Your task to perform on an android device: Show me recent news Image 0: 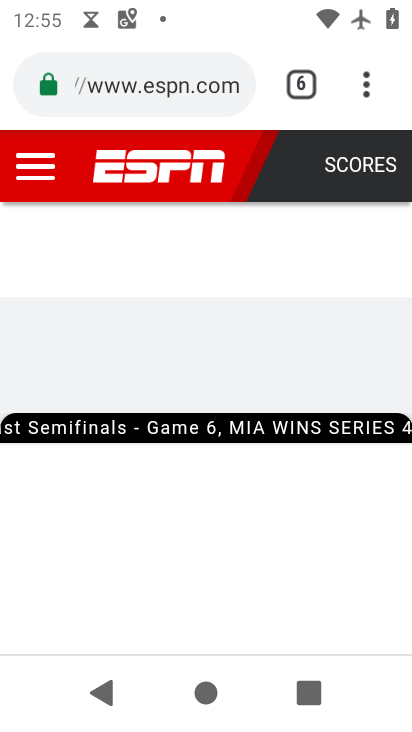
Step 0: press home button
Your task to perform on an android device: Show me recent news Image 1: 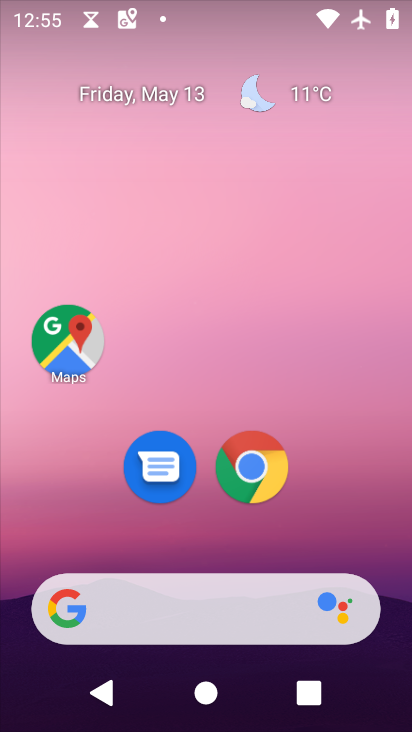
Step 1: drag from (349, 465) to (249, 47)
Your task to perform on an android device: Show me recent news Image 2: 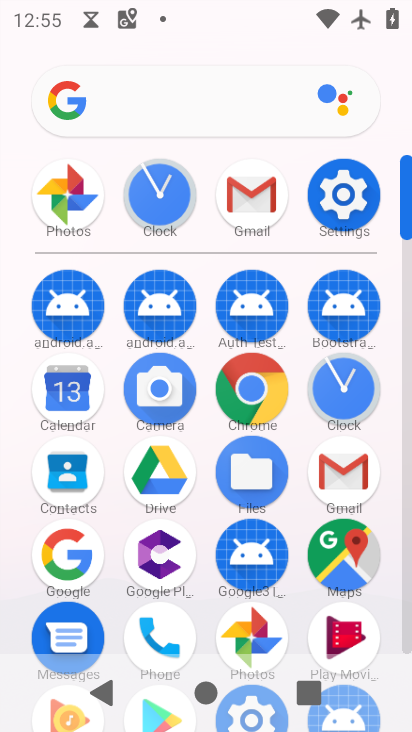
Step 2: click (74, 574)
Your task to perform on an android device: Show me recent news Image 3: 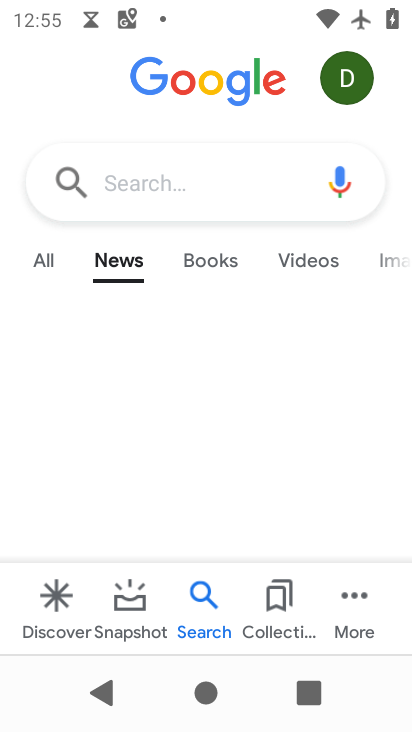
Step 3: click (122, 260)
Your task to perform on an android device: Show me recent news Image 4: 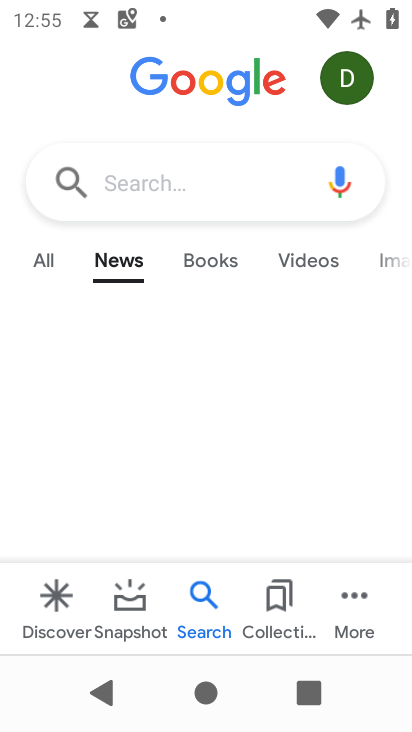
Step 4: drag from (238, 455) to (210, 85)
Your task to perform on an android device: Show me recent news Image 5: 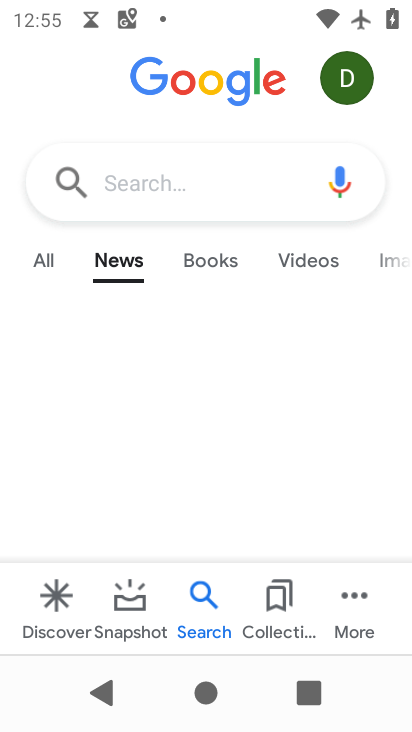
Step 5: click (148, 187)
Your task to perform on an android device: Show me recent news Image 6: 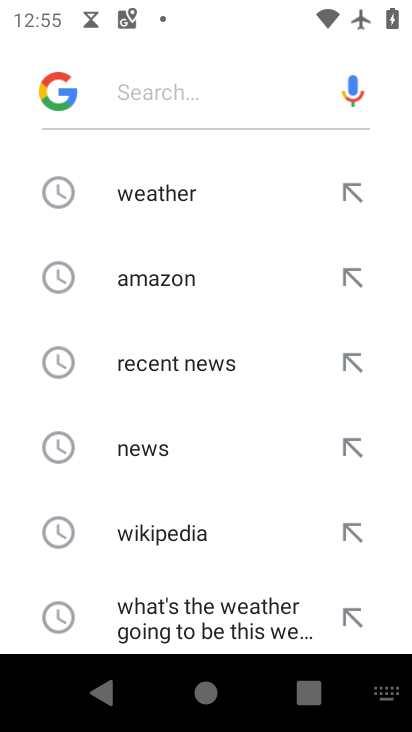
Step 6: click (172, 362)
Your task to perform on an android device: Show me recent news Image 7: 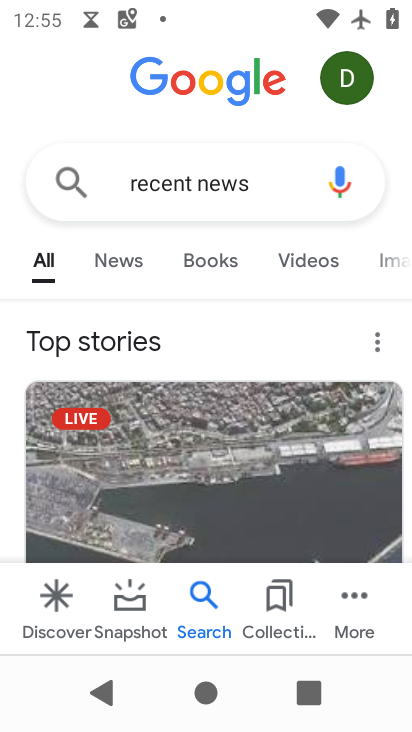
Step 7: task complete